Your task to perform on an android device: turn off improve location accuracy Image 0: 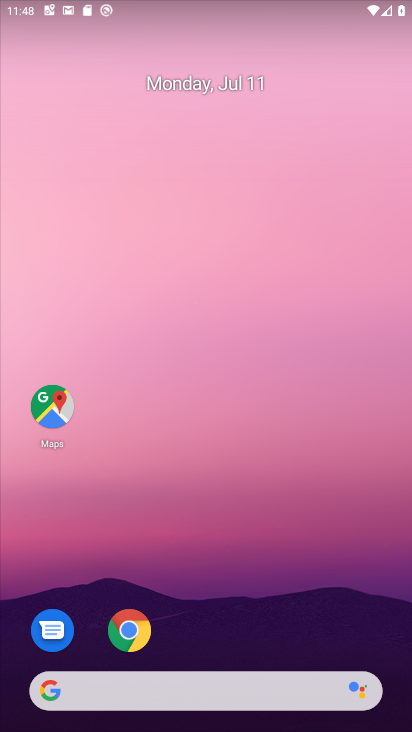
Step 0: drag from (240, 631) to (285, 58)
Your task to perform on an android device: turn off improve location accuracy Image 1: 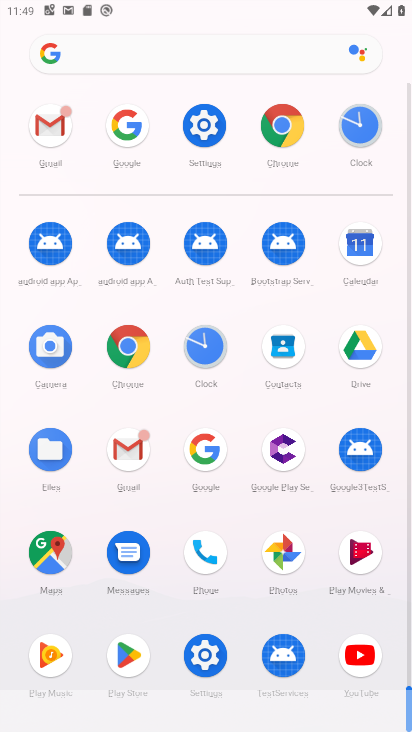
Step 1: click (219, 127)
Your task to perform on an android device: turn off improve location accuracy Image 2: 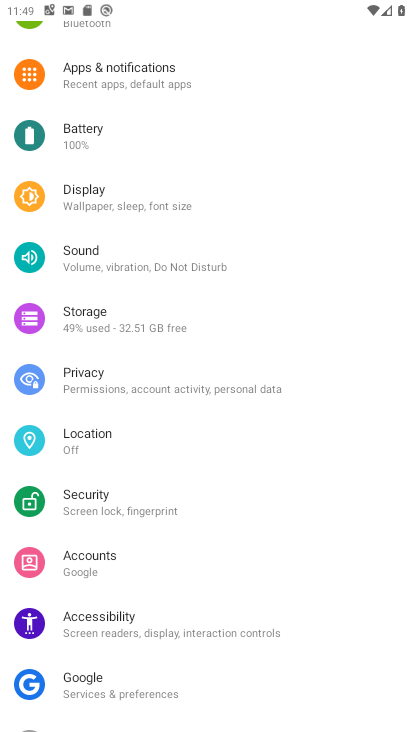
Step 2: click (123, 446)
Your task to perform on an android device: turn off improve location accuracy Image 3: 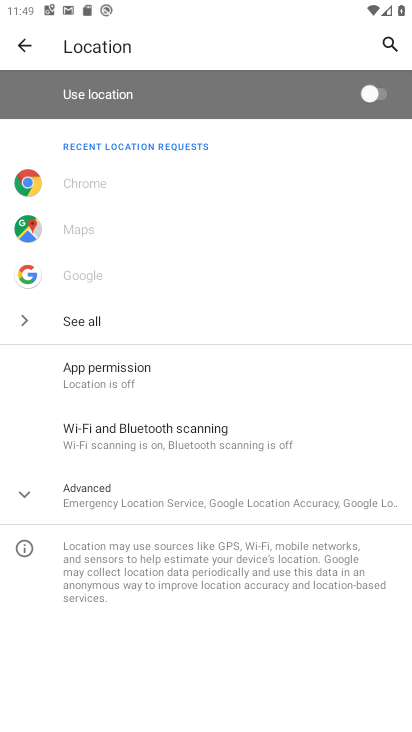
Step 3: click (101, 489)
Your task to perform on an android device: turn off improve location accuracy Image 4: 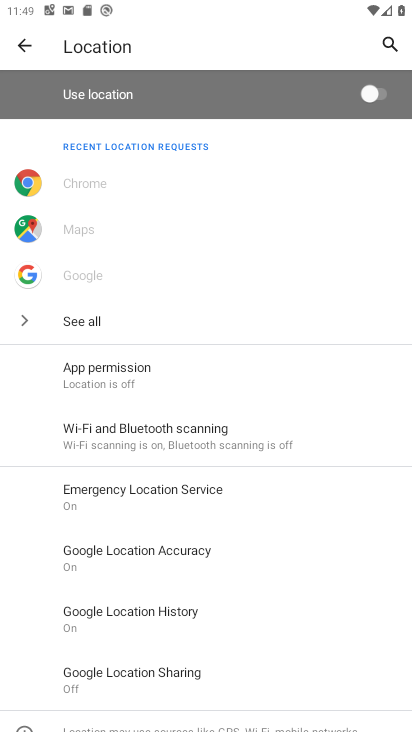
Step 4: click (159, 557)
Your task to perform on an android device: turn off improve location accuracy Image 5: 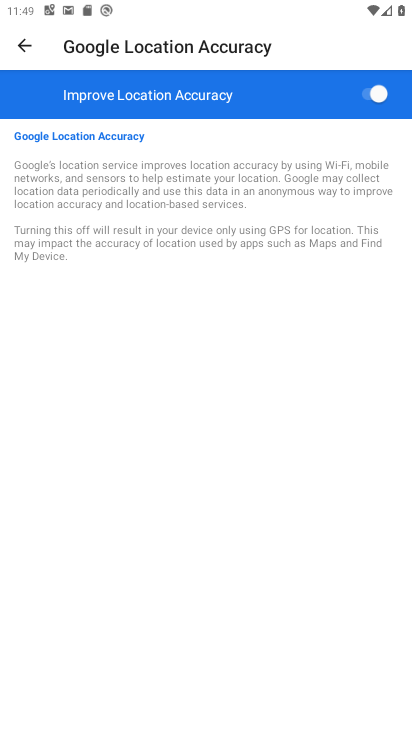
Step 5: click (350, 95)
Your task to perform on an android device: turn off improve location accuracy Image 6: 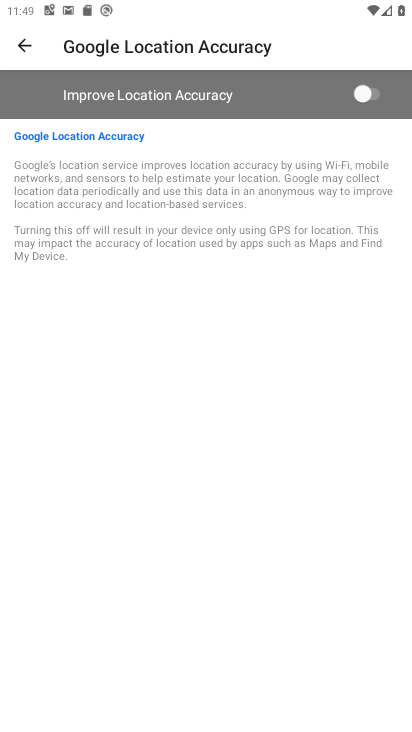
Step 6: task complete